Your task to perform on an android device: What is the capital of France? Image 0: 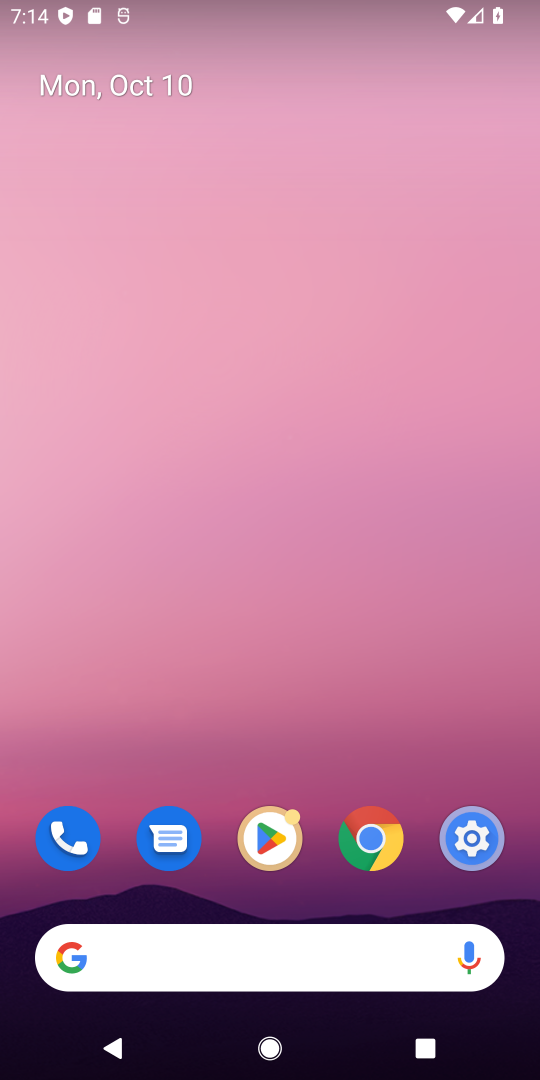
Step 0: click (368, 831)
Your task to perform on an android device: What is the capital of France? Image 1: 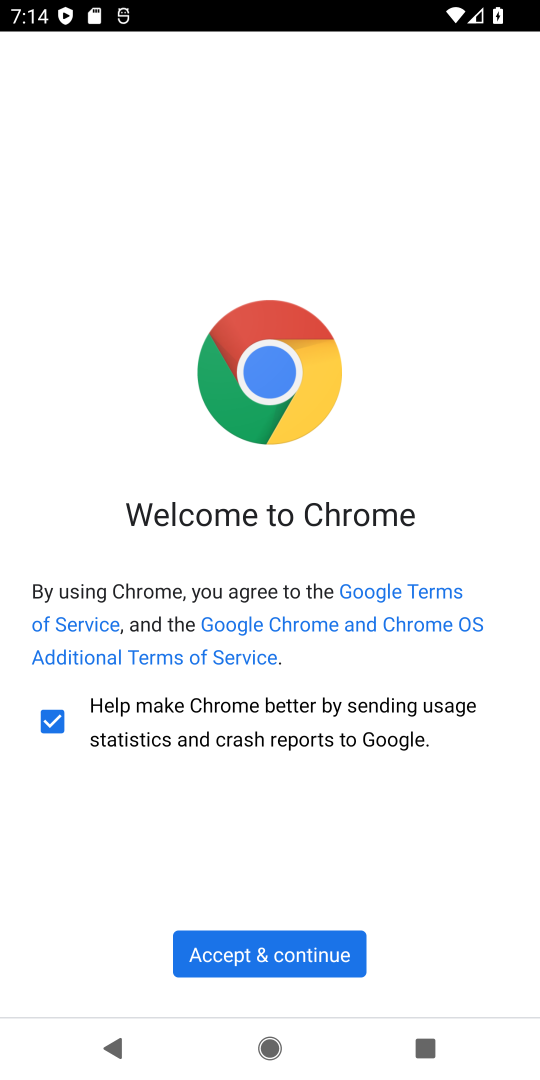
Step 1: click (261, 958)
Your task to perform on an android device: What is the capital of France? Image 2: 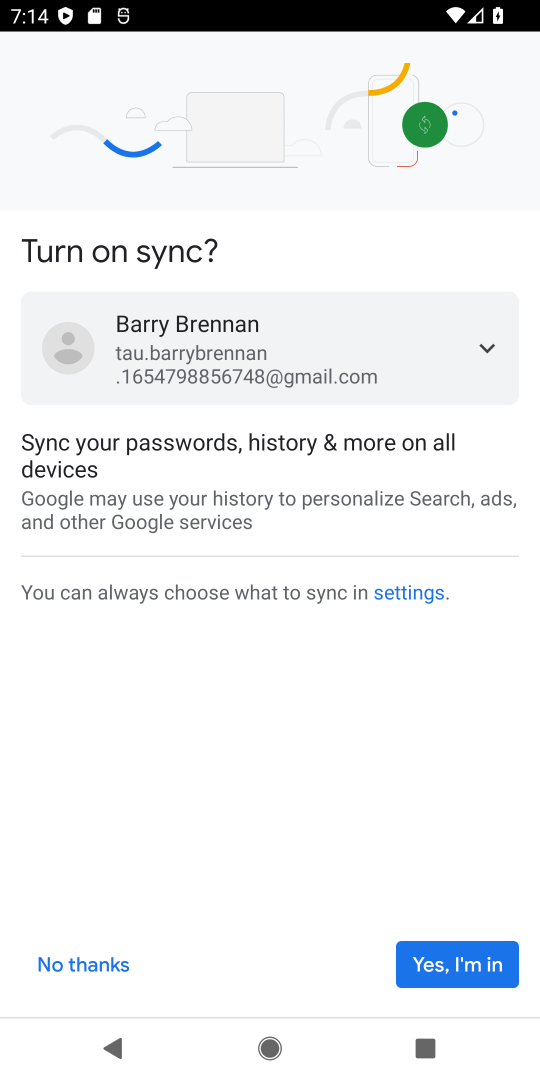
Step 2: click (454, 962)
Your task to perform on an android device: What is the capital of France? Image 3: 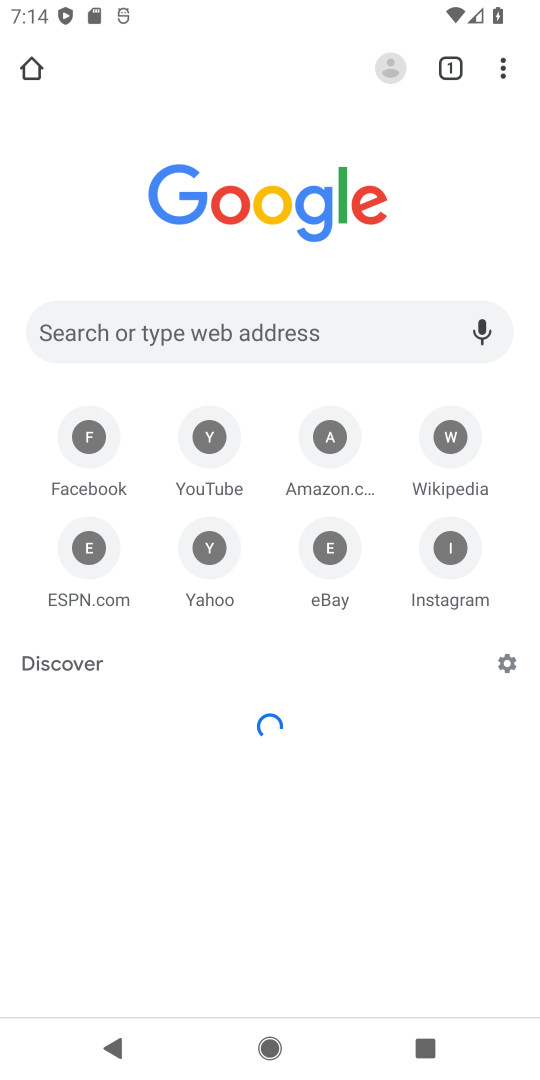
Step 3: click (194, 329)
Your task to perform on an android device: What is the capital of France? Image 4: 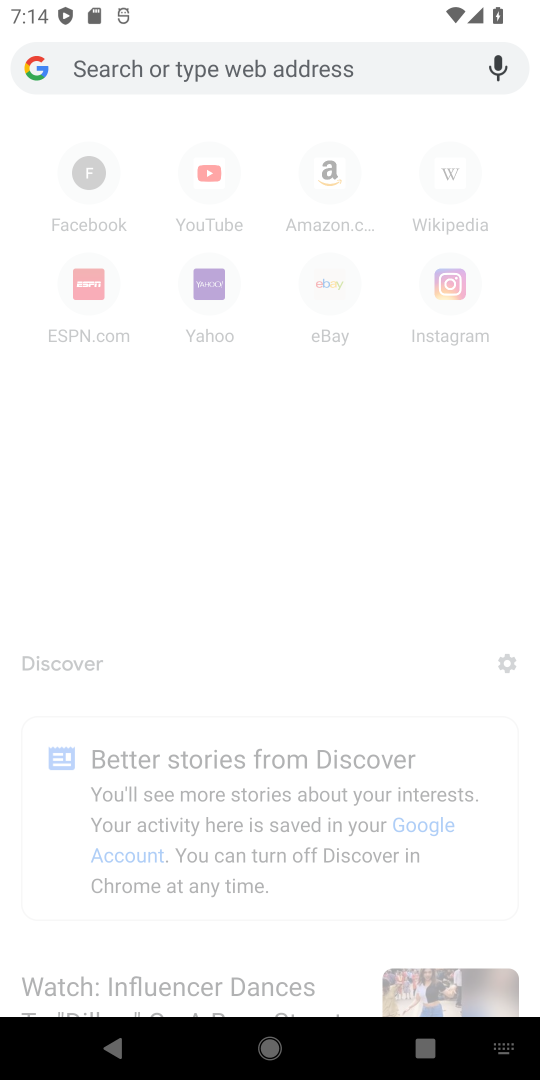
Step 4: type "capital of france?"
Your task to perform on an android device: What is the capital of France? Image 5: 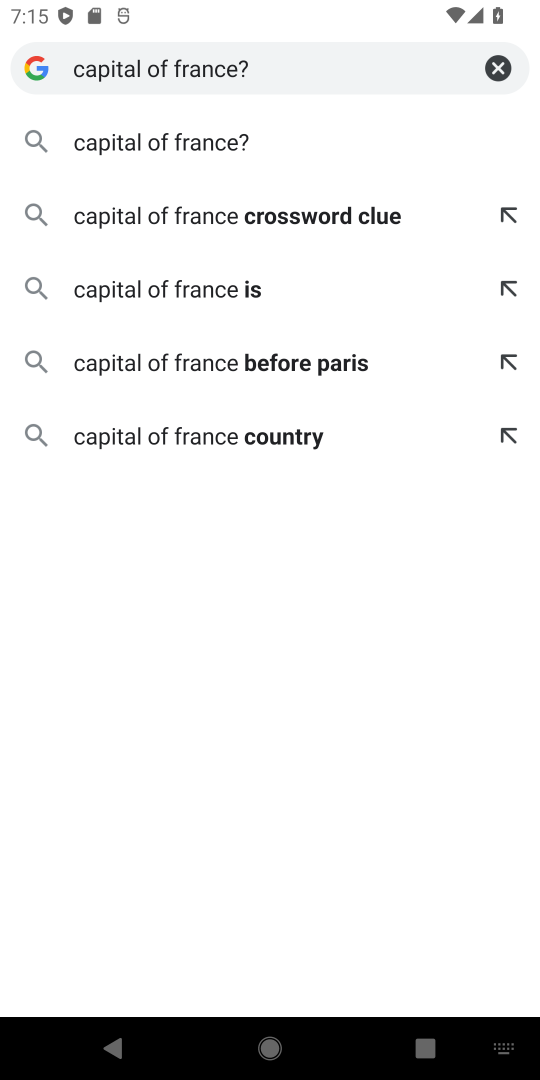
Step 5: click (152, 124)
Your task to perform on an android device: What is the capital of France? Image 6: 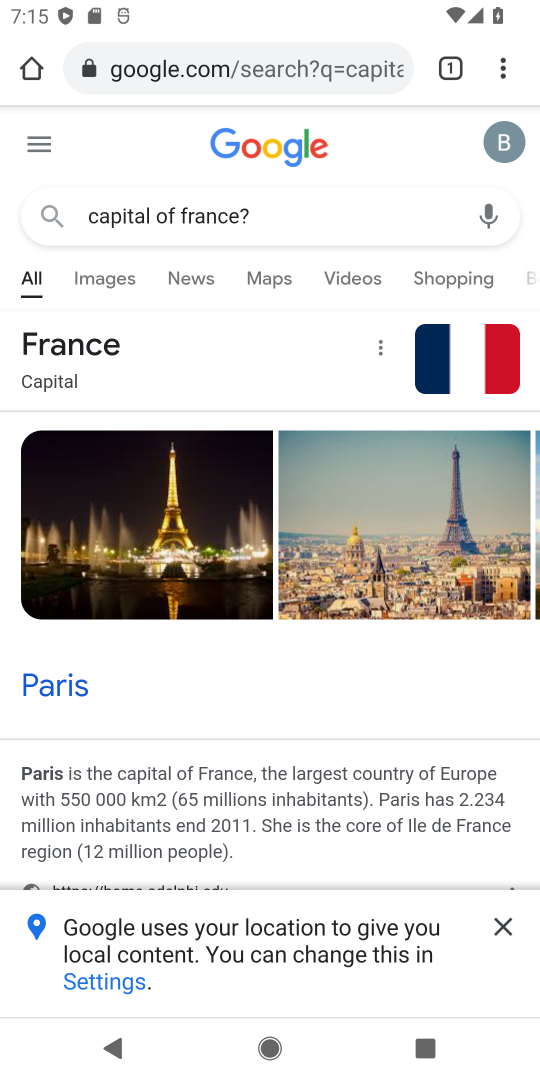
Step 6: task complete